Your task to perform on an android device: Go to Maps Image 0: 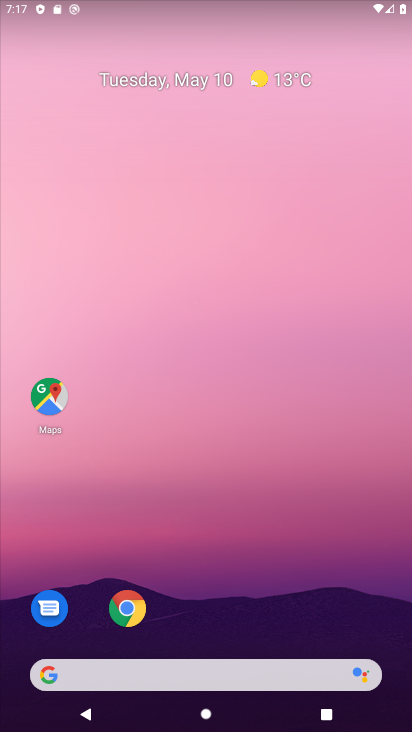
Step 0: click (40, 406)
Your task to perform on an android device: Go to Maps Image 1: 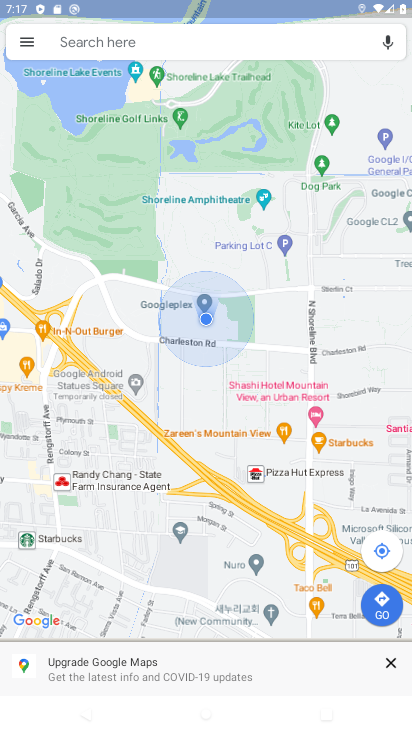
Step 1: task complete